Your task to perform on an android device: visit the assistant section in the google photos Image 0: 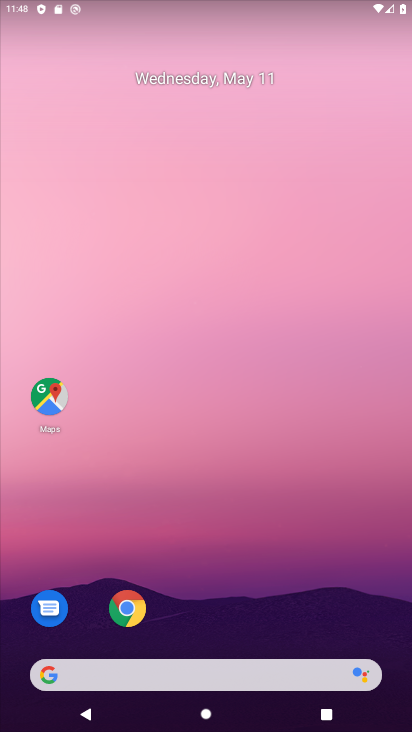
Step 0: drag from (305, 649) to (334, 53)
Your task to perform on an android device: visit the assistant section in the google photos Image 1: 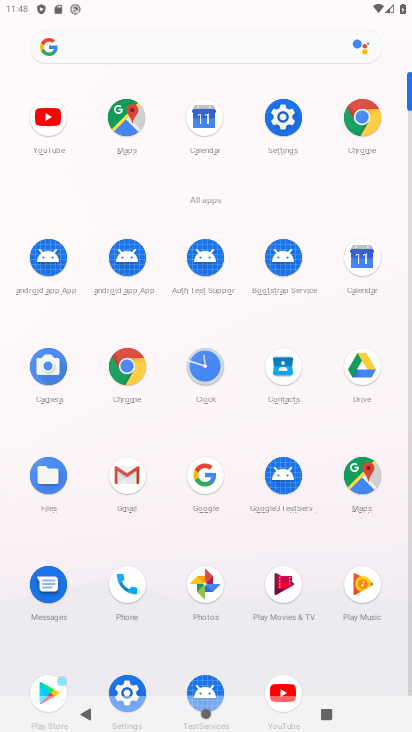
Step 1: click (204, 584)
Your task to perform on an android device: visit the assistant section in the google photos Image 2: 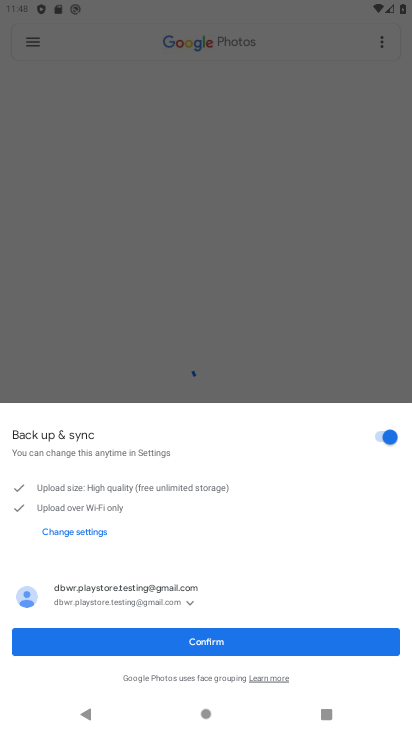
Step 2: click (223, 646)
Your task to perform on an android device: visit the assistant section in the google photos Image 3: 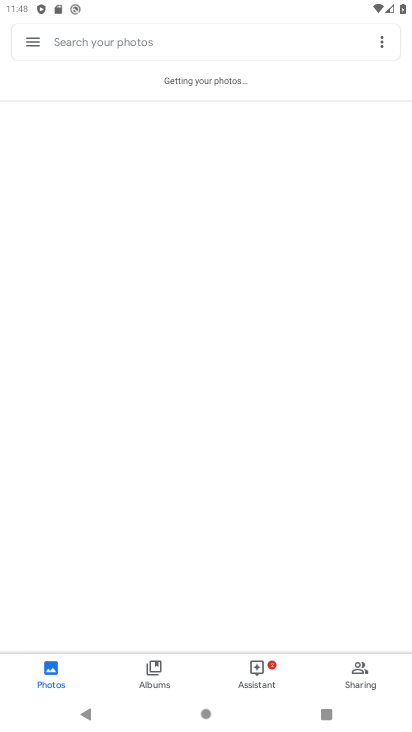
Step 3: click (258, 678)
Your task to perform on an android device: visit the assistant section in the google photos Image 4: 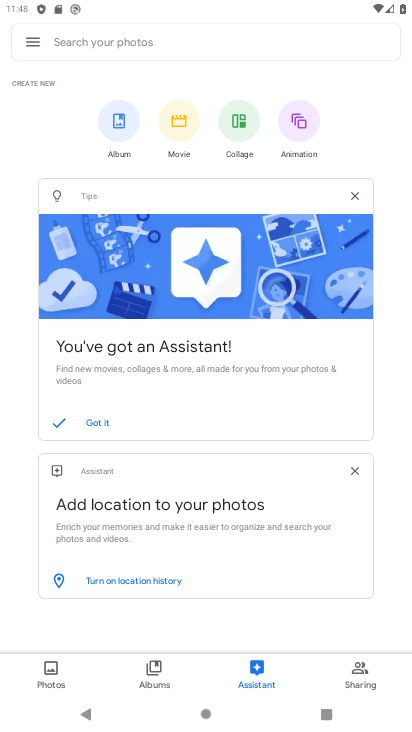
Step 4: task complete